Your task to perform on an android device: find snoozed emails in the gmail app Image 0: 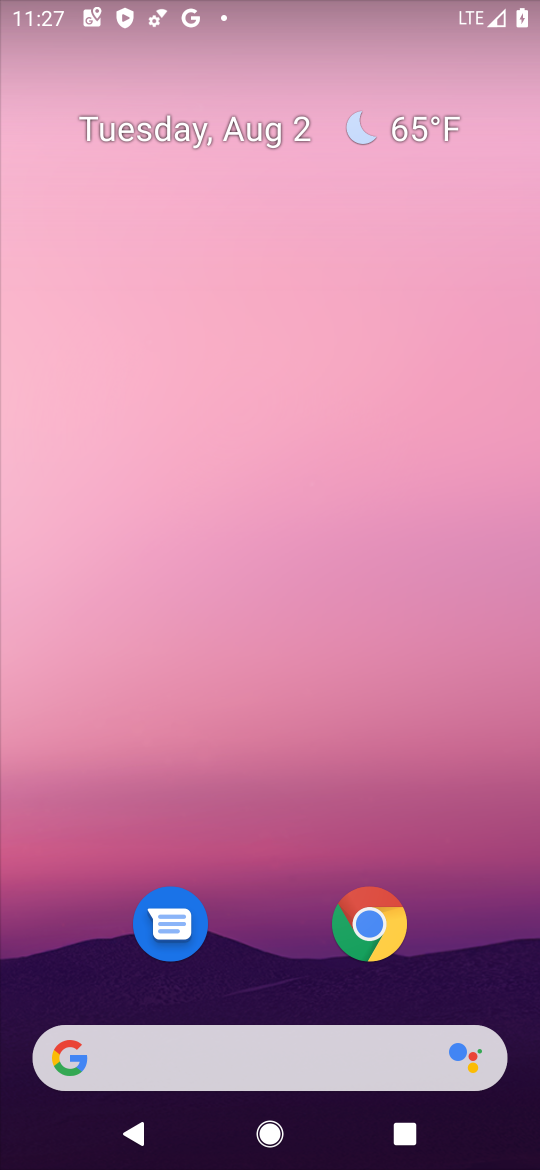
Step 0: drag from (231, 992) to (292, 162)
Your task to perform on an android device: find snoozed emails in the gmail app Image 1: 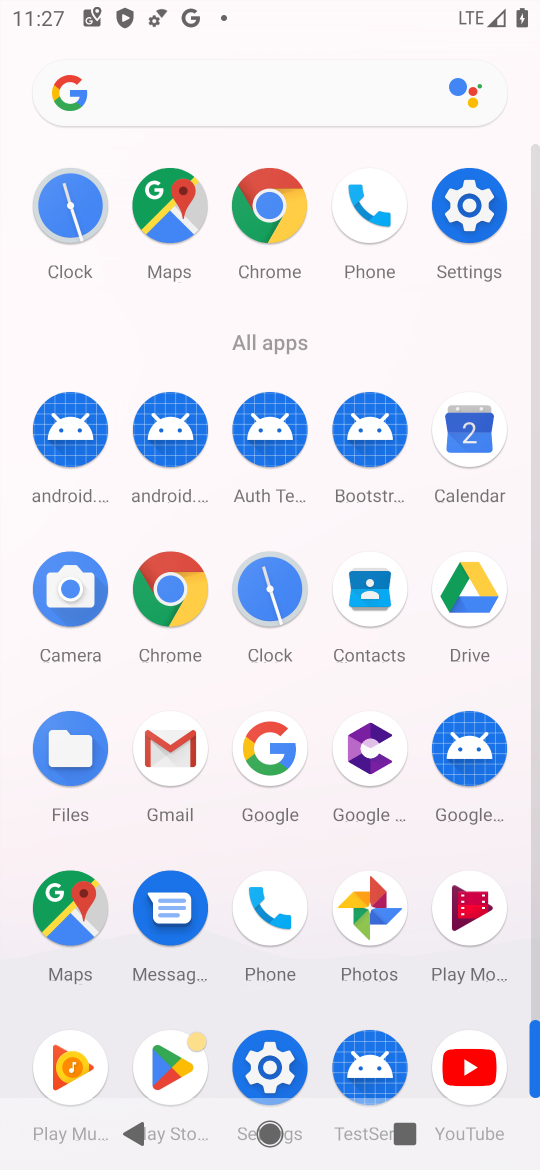
Step 1: click (155, 742)
Your task to perform on an android device: find snoozed emails in the gmail app Image 2: 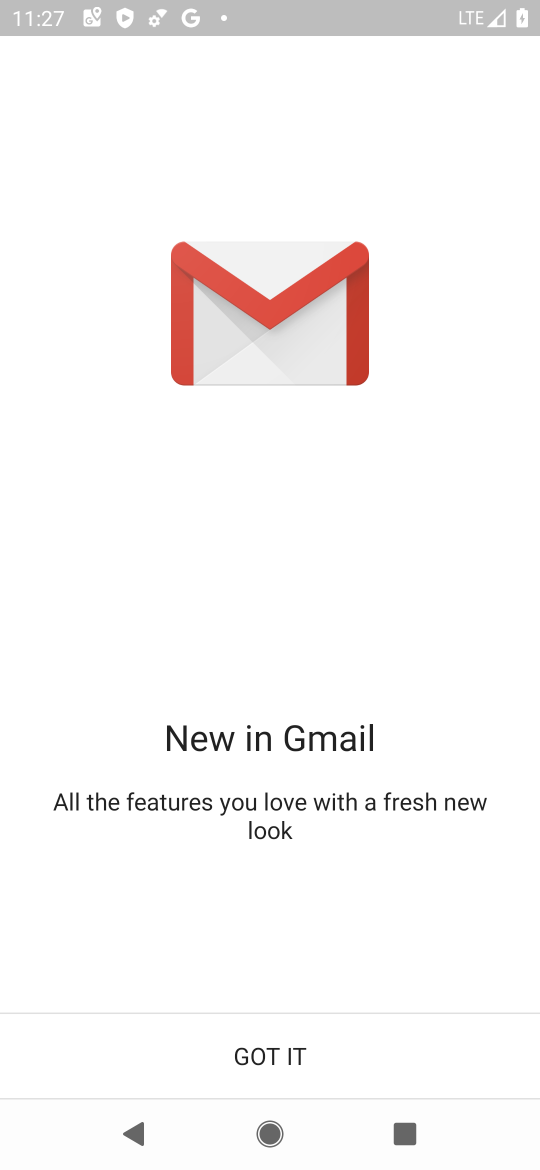
Step 2: click (311, 1039)
Your task to perform on an android device: find snoozed emails in the gmail app Image 3: 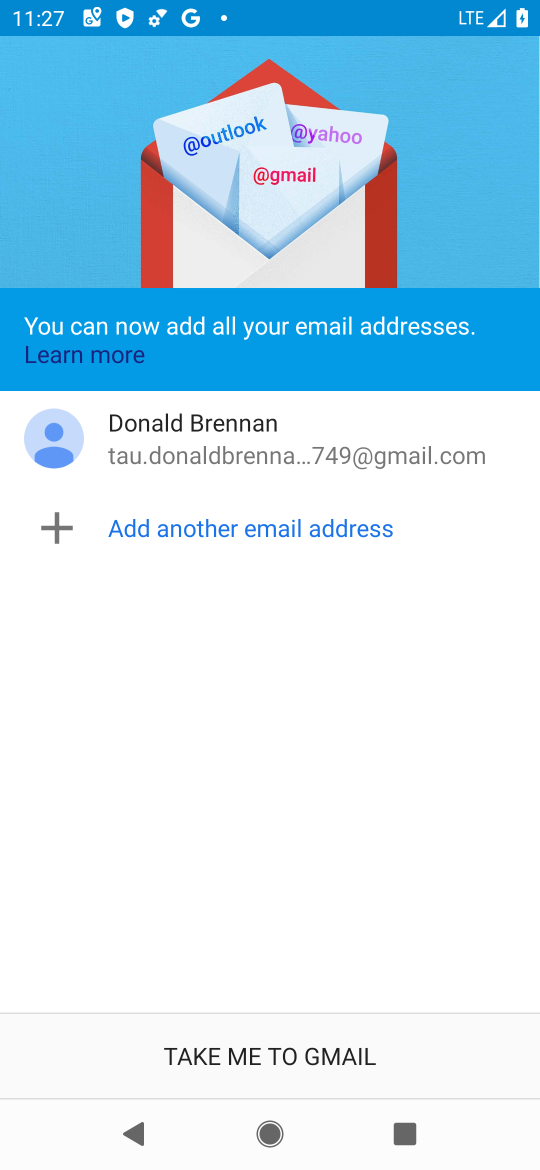
Step 3: click (311, 1039)
Your task to perform on an android device: find snoozed emails in the gmail app Image 4: 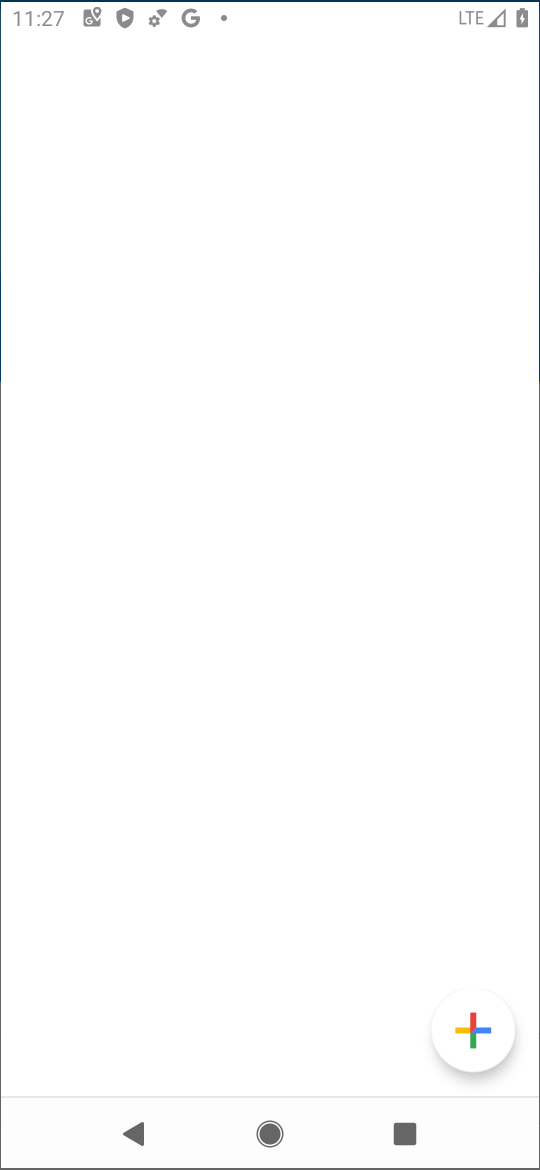
Step 4: click (311, 1039)
Your task to perform on an android device: find snoozed emails in the gmail app Image 5: 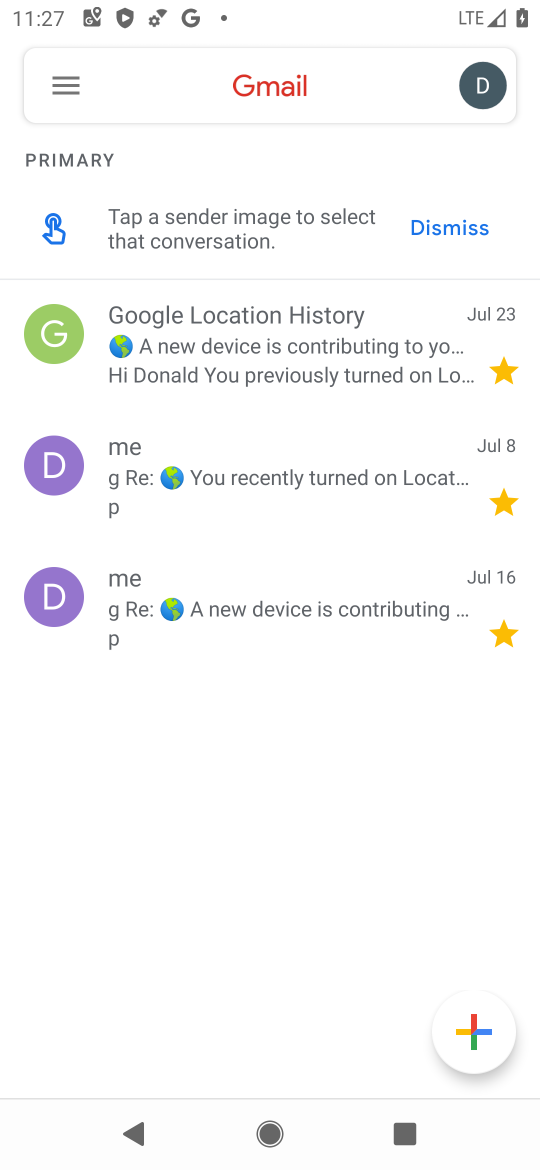
Step 5: click (68, 88)
Your task to perform on an android device: find snoozed emails in the gmail app Image 6: 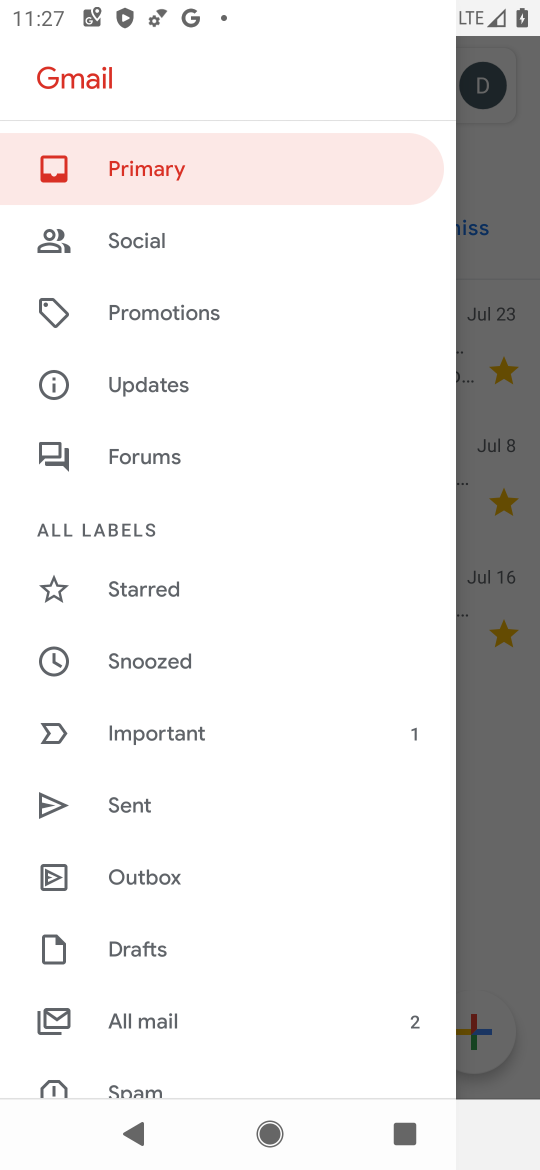
Step 6: click (160, 665)
Your task to perform on an android device: find snoozed emails in the gmail app Image 7: 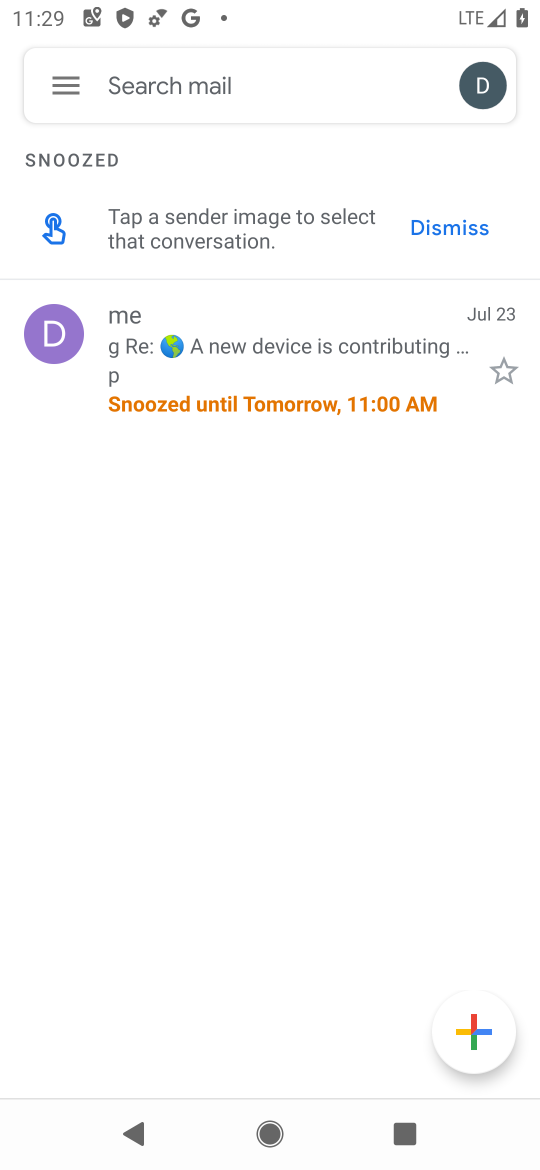
Step 7: task complete